Your task to perform on an android device: What's on my calendar today? Image 0: 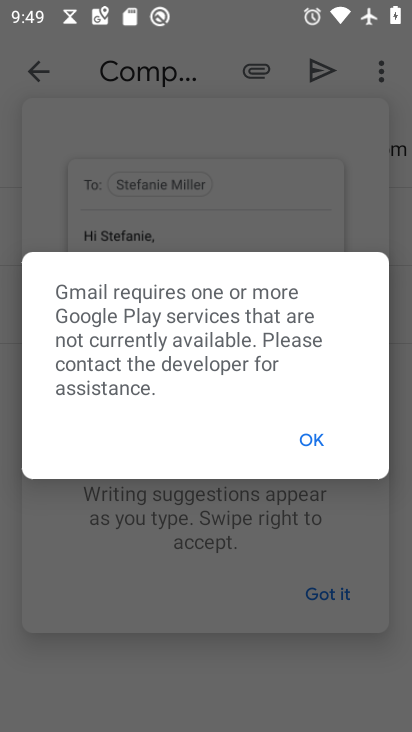
Step 0: press home button
Your task to perform on an android device: What's on my calendar today? Image 1: 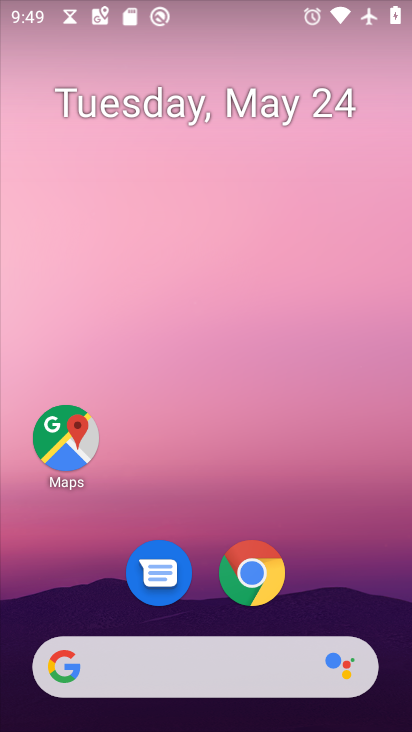
Step 1: drag from (363, 555) to (411, 24)
Your task to perform on an android device: What's on my calendar today? Image 2: 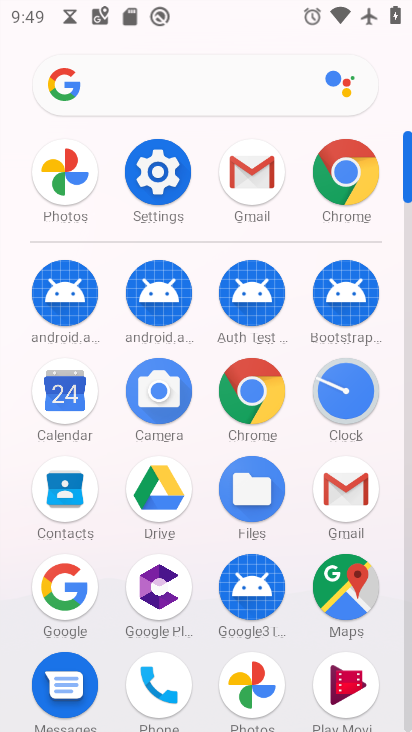
Step 2: click (72, 395)
Your task to perform on an android device: What's on my calendar today? Image 3: 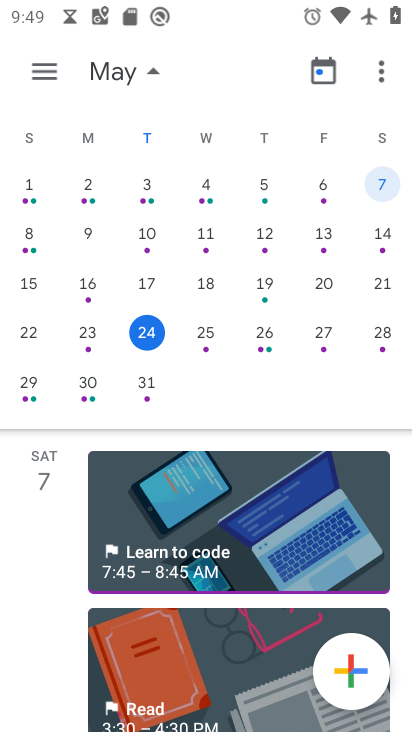
Step 3: task complete